Your task to perform on an android device: Open Yahoo.com Image 0: 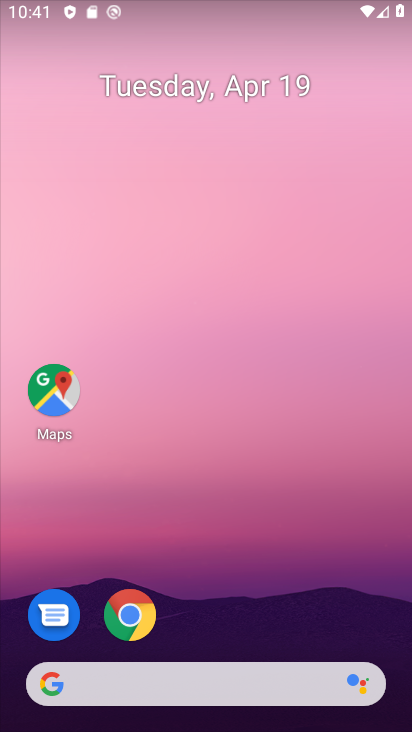
Step 0: click (126, 606)
Your task to perform on an android device: Open Yahoo.com Image 1: 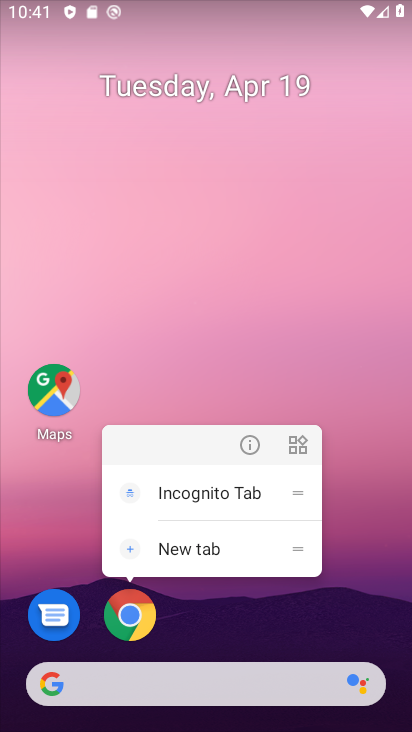
Step 1: click (126, 606)
Your task to perform on an android device: Open Yahoo.com Image 2: 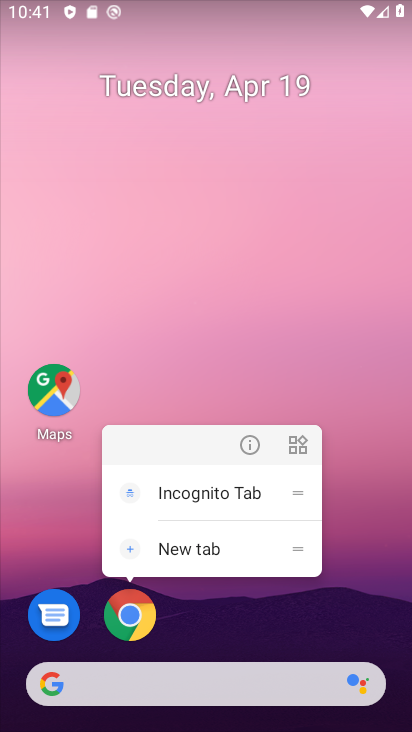
Step 2: click (126, 606)
Your task to perform on an android device: Open Yahoo.com Image 3: 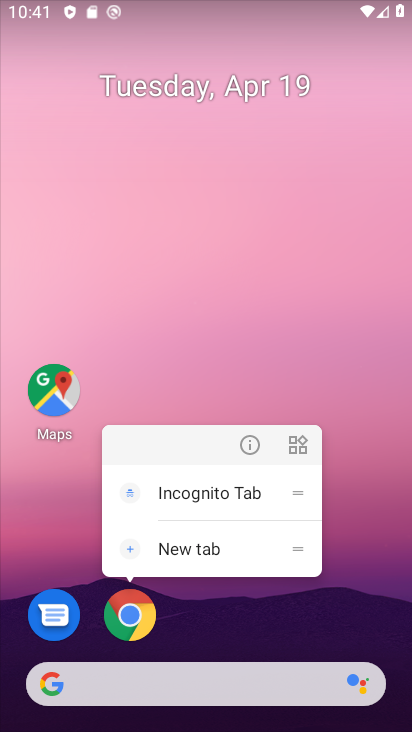
Step 3: click (139, 606)
Your task to perform on an android device: Open Yahoo.com Image 4: 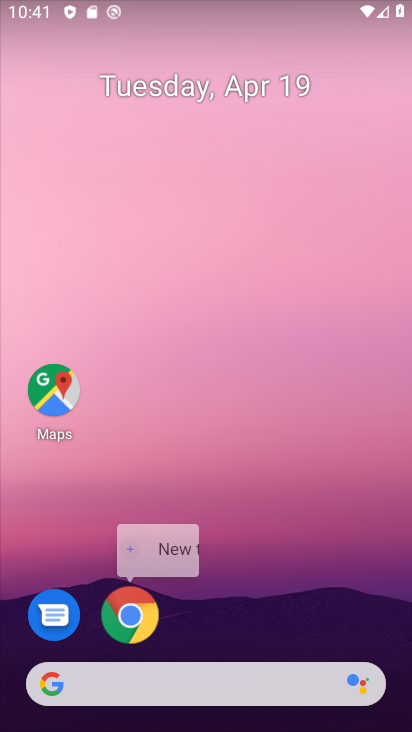
Step 4: click (139, 606)
Your task to perform on an android device: Open Yahoo.com Image 5: 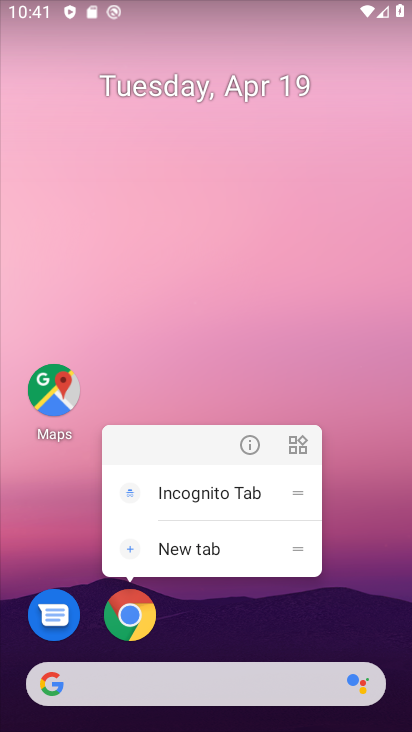
Step 5: click (124, 602)
Your task to perform on an android device: Open Yahoo.com Image 6: 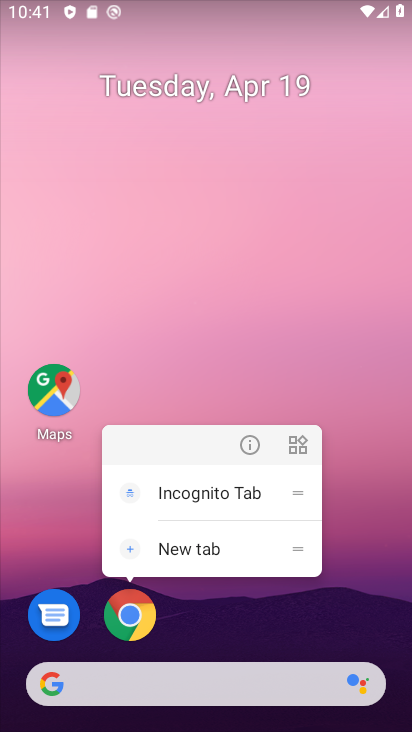
Step 6: click (126, 613)
Your task to perform on an android device: Open Yahoo.com Image 7: 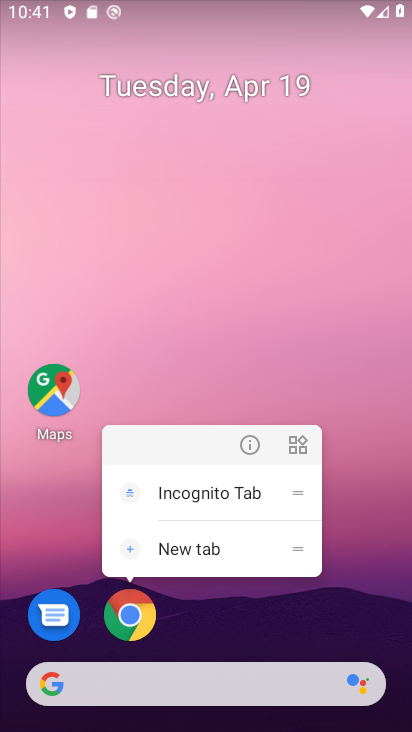
Step 7: click (126, 613)
Your task to perform on an android device: Open Yahoo.com Image 8: 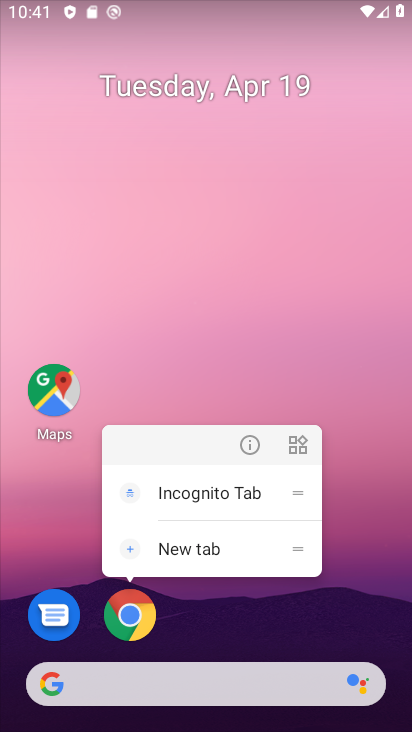
Step 8: click (126, 613)
Your task to perform on an android device: Open Yahoo.com Image 9: 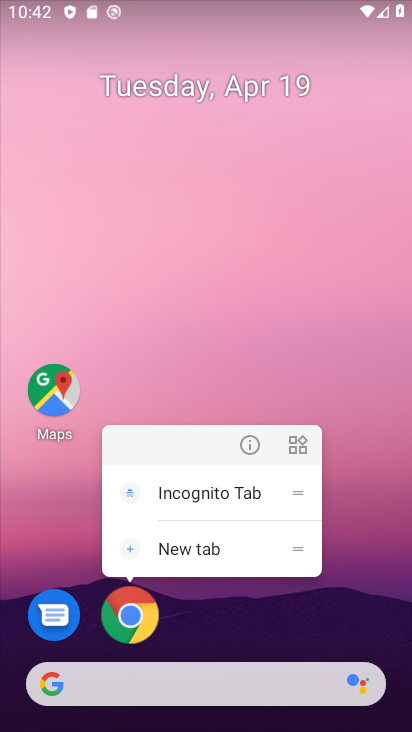
Step 9: click (126, 613)
Your task to perform on an android device: Open Yahoo.com Image 10: 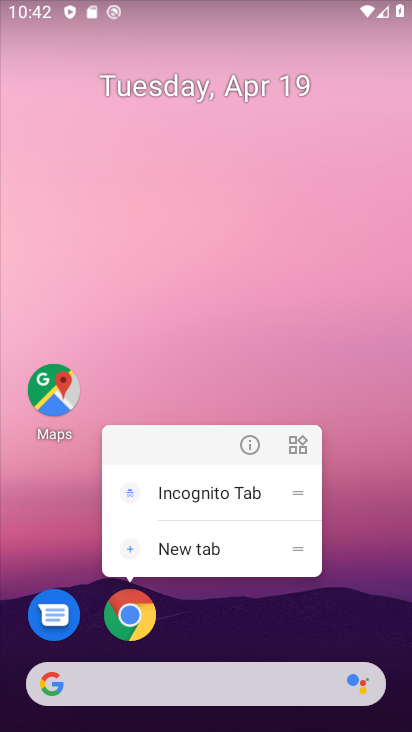
Step 10: click (126, 613)
Your task to perform on an android device: Open Yahoo.com Image 11: 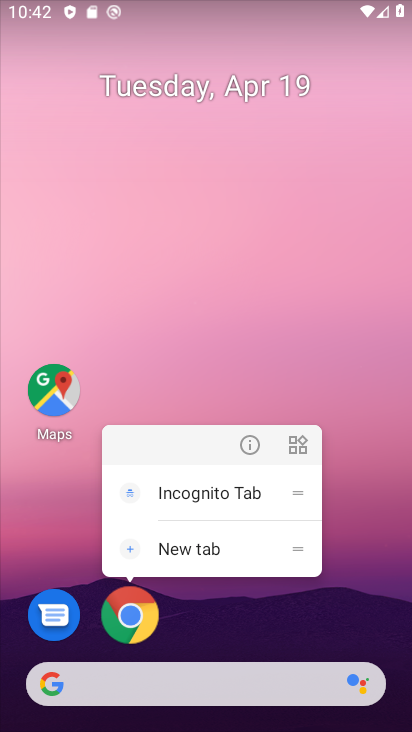
Step 11: click (126, 613)
Your task to perform on an android device: Open Yahoo.com Image 12: 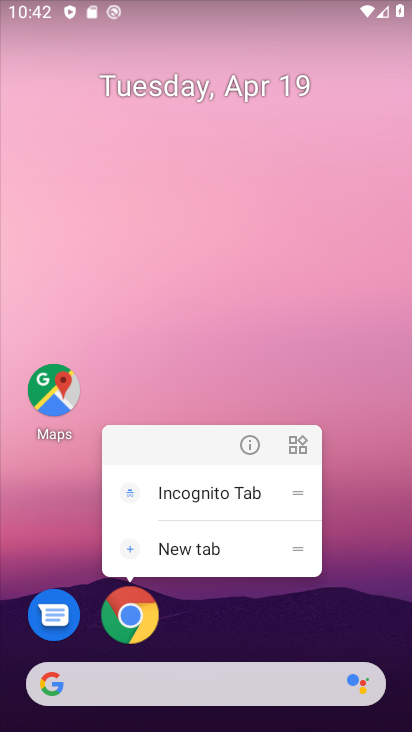
Step 12: click (126, 613)
Your task to perform on an android device: Open Yahoo.com Image 13: 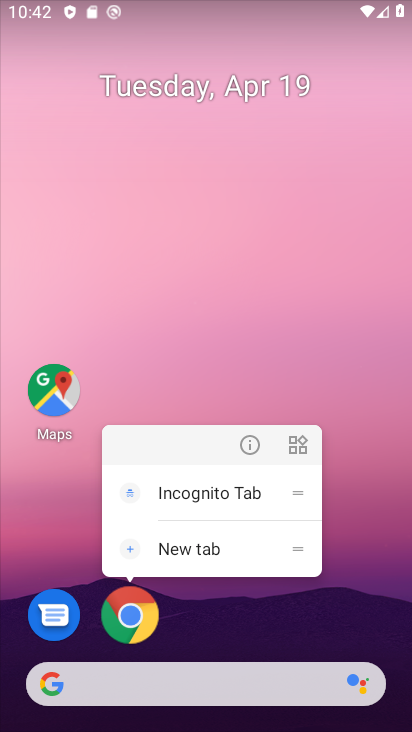
Step 13: click (126, 613)
Your task to perform on an android device: Open Yahoo.com Image 14: 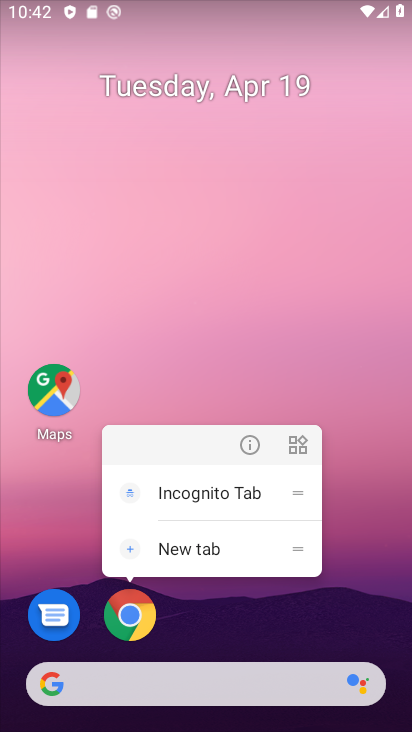
Step 14: click (126, 613)
Your task to perform on an android device: Open Yahoo.com Image 15: 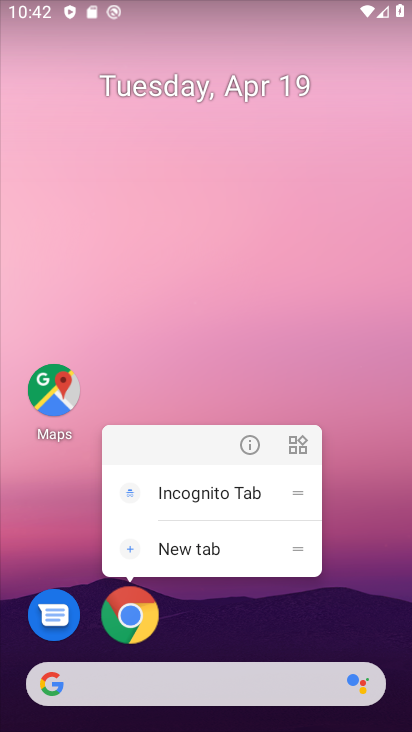
Step 15: click (126, 613)
Your task to perform on an android device: Open Yahoo.com Image 16: 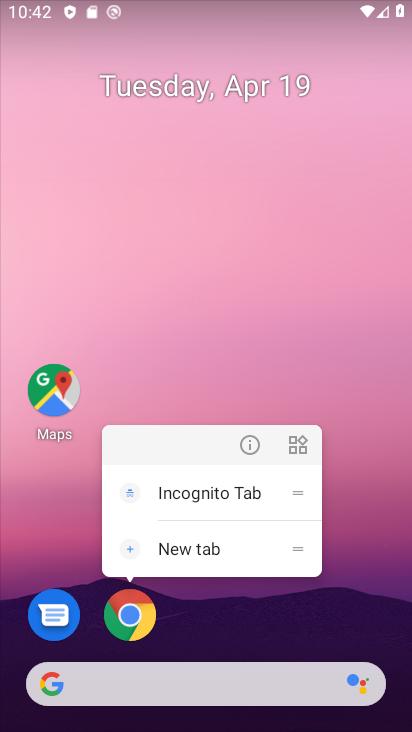
Step 16: click (126, 613)
Your task to perform on an android device: Open Yahoo.com Image 17: 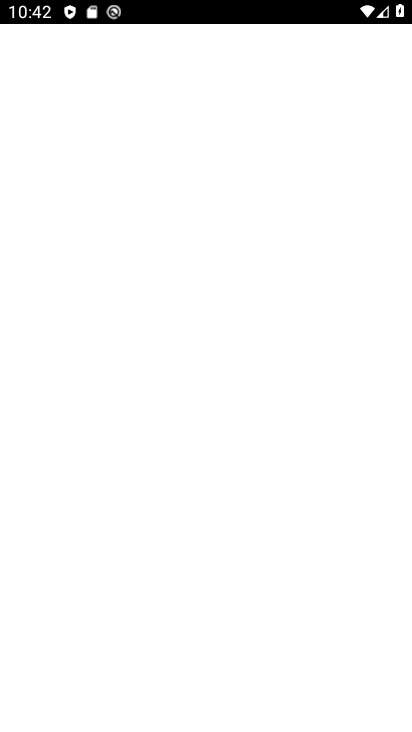
Step 17: click (126, 613)
Your task to perform on an android device: Open Yahoo.com Image 18: 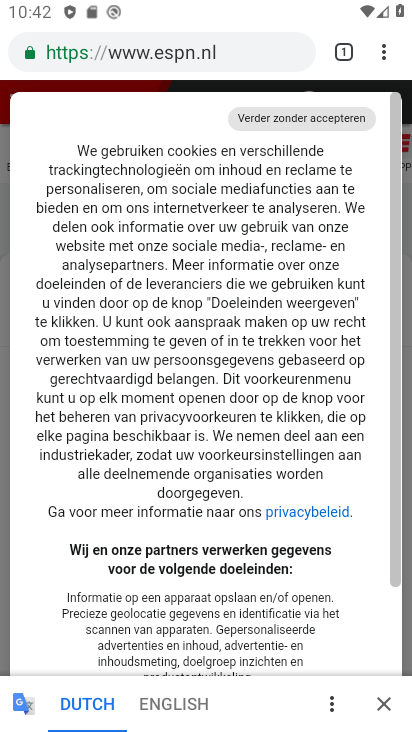
Step 18: click (377, 53)
Your task to perform on an android device: Open Yahoo.com Image 19: 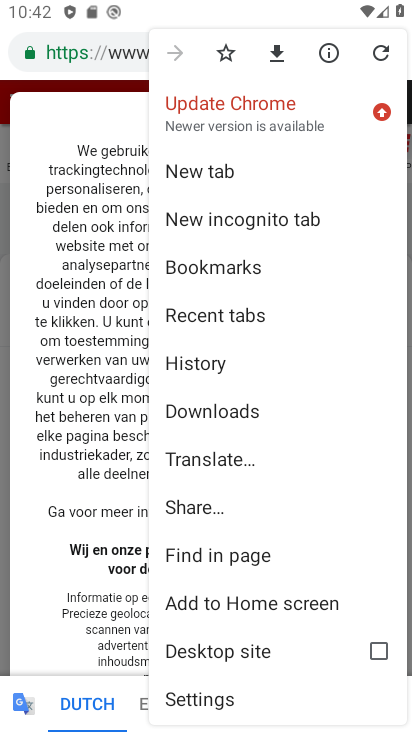
Step 19: click (179, 176)
Your task to perform on an android device: Open Yahoo.com Image 20: 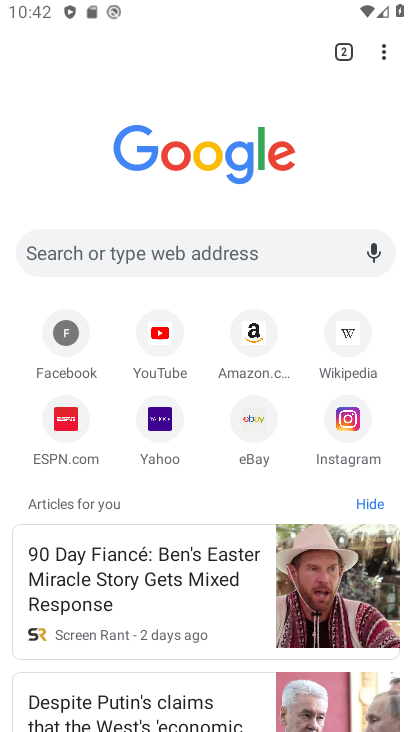
Step 20: click (97, 262)
Your task to perform on an android device: Open Yahoo.com Image 21: 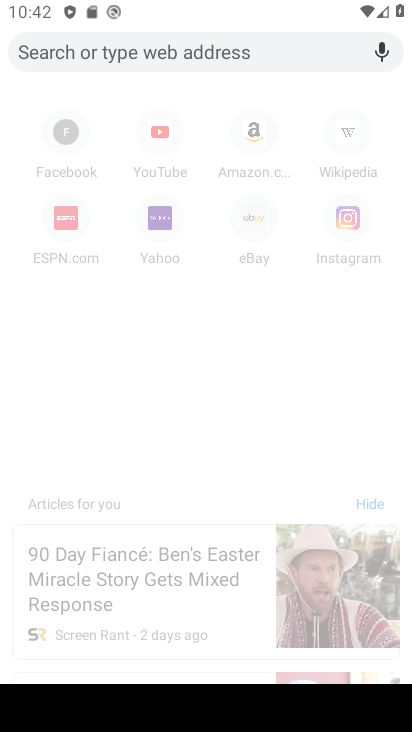
Step 21: type "yahoo.com"
Your task to perform on an android device: Open Yahoo.com Image 22: 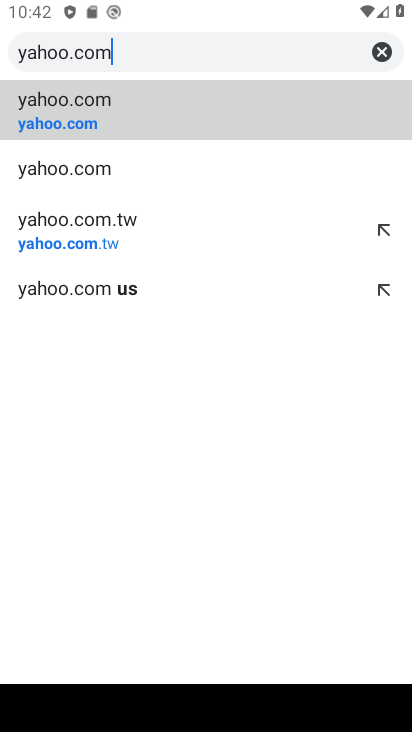
Step 22: click (40, 114)
Your task to perform on an android device: Open Yahoo.com Image 23: 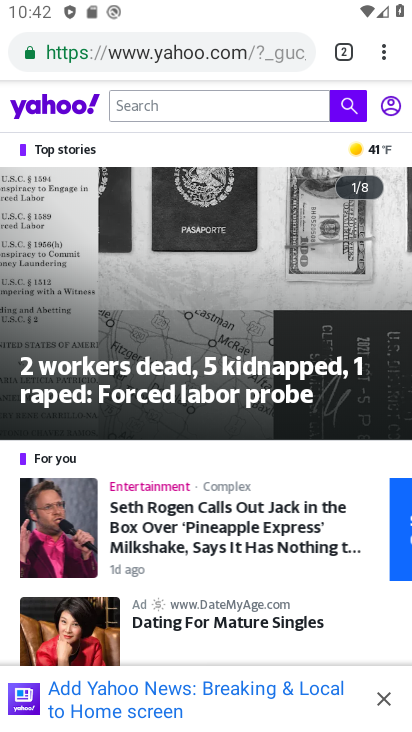
Step 23: task complete